Your task to perform on an android device: open chrome and create a bookmark for the current page Image 0: 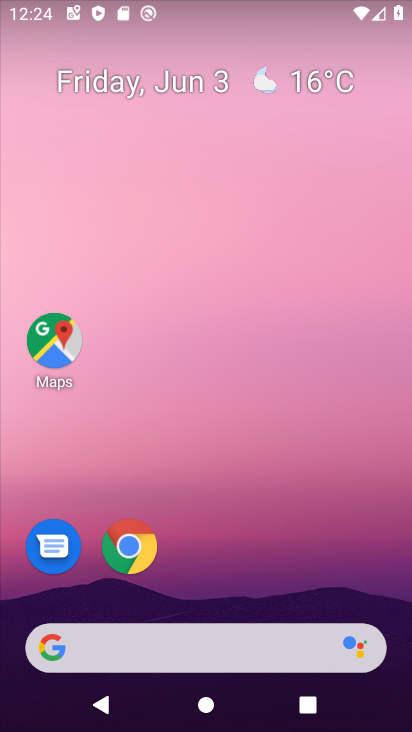
Step 0: click (132, 550)
Your task to perform on an android device: open chrome and create a bookmark for the current page Image 1: 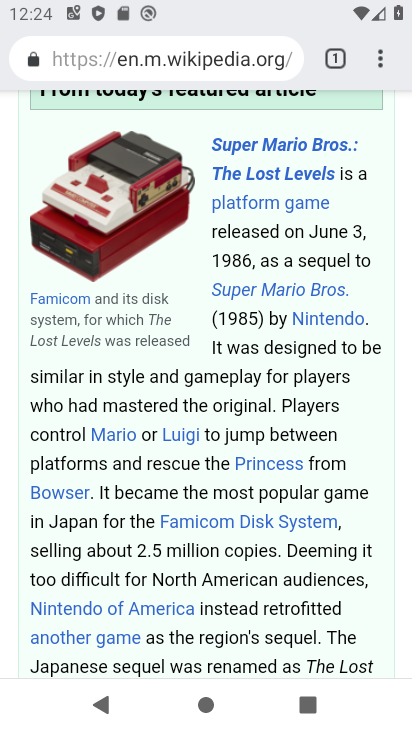
Step 1: click (379, 56)
Your task to perform on an android device: open chrome and create a bookmark for the current page Image 2: 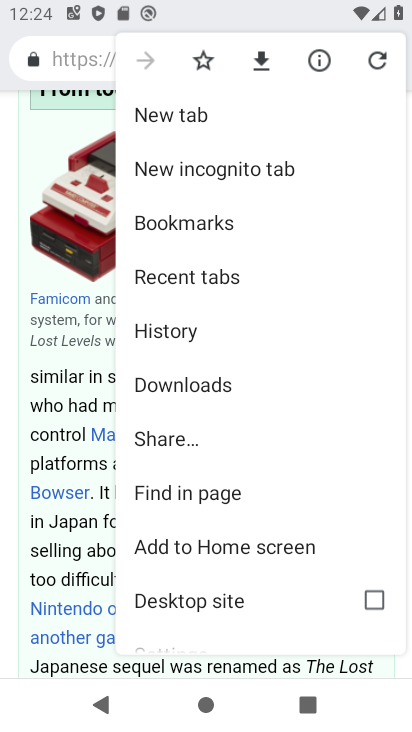
Step 2: click (200, 62)
Your task to perform on an android device: open chrome and create a bookmark for the current page Image 3: 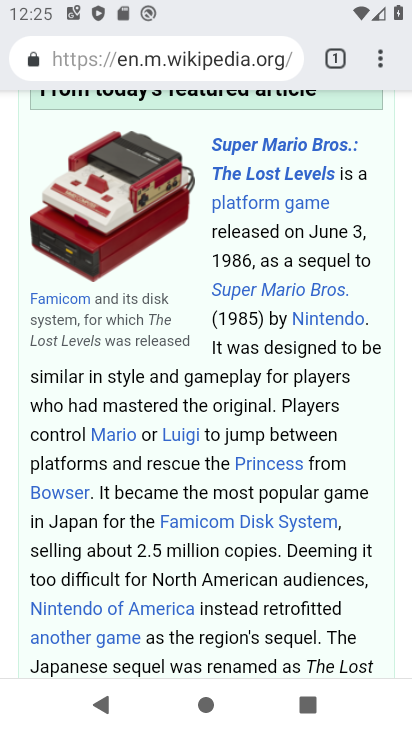
Step 3: task complete